Your task to perform on an android device: Open Google Chrome and open the bookmarks view Image 0: 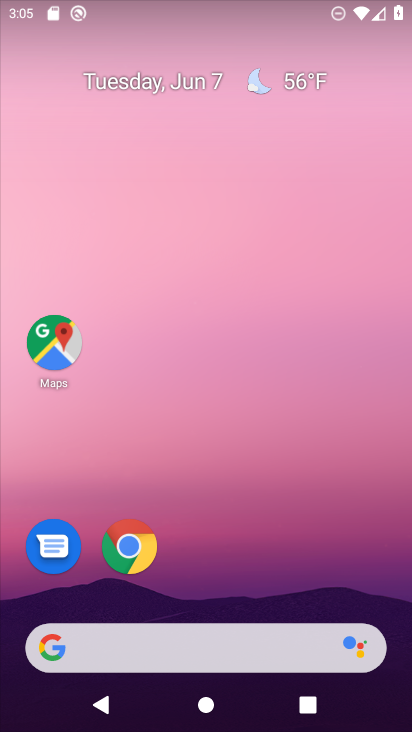
Step 0: drag from (263, 494) to (204, 5)
Your task to perform on an android device: Open Google Chrome and open the bookmarks view Image 1: 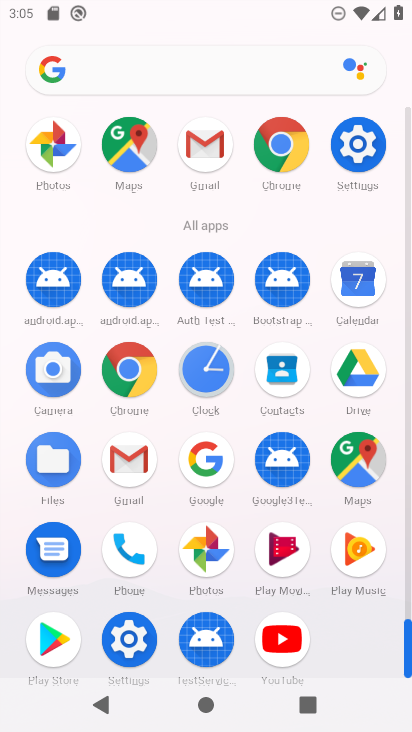
Step 1: click (277, 145)
Your task to perform on an android device: Open Google Chrome and open the bookmarks view Image 2: 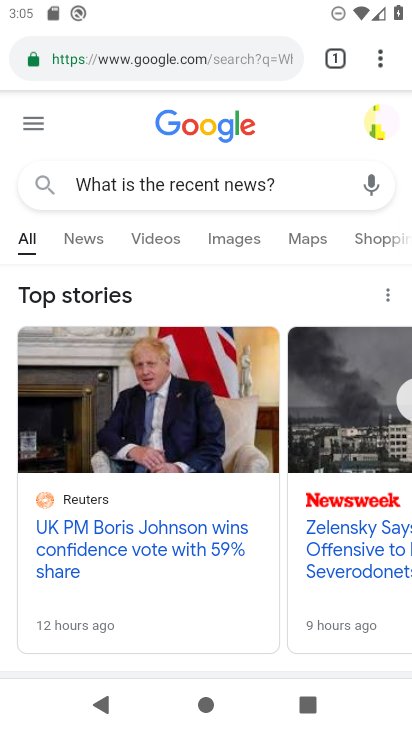
Step 2: task complete